Your task to perform on an android device: open chrome and create a bookmark for the current page Image 0: 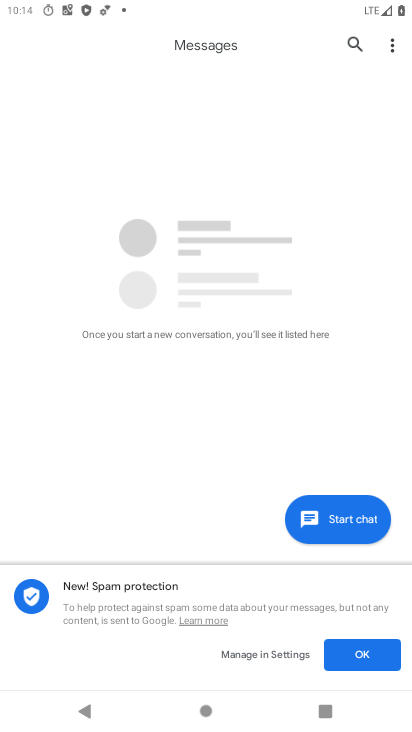
Step 0: press home button
Your task to perform on an android device: open chrome and create a bookmark for the current page Image 1: 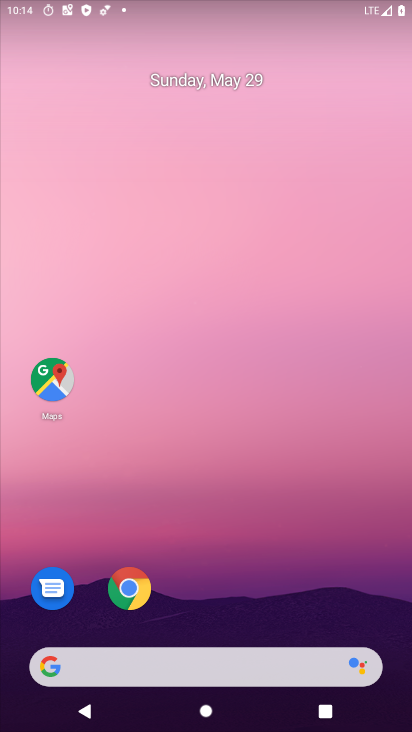
Step 1: drag from (265, 583) to (266, 151)
Your task to perform on an android device: open chrome and create a bookmark for the current page Image 2: 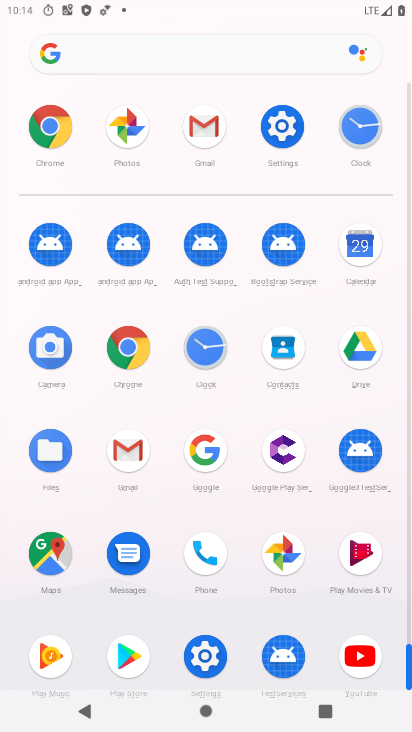
Step 2: click (146, 365)
Your task to perform on an android device: open chrome and create a bookmark for the current page Image 3: 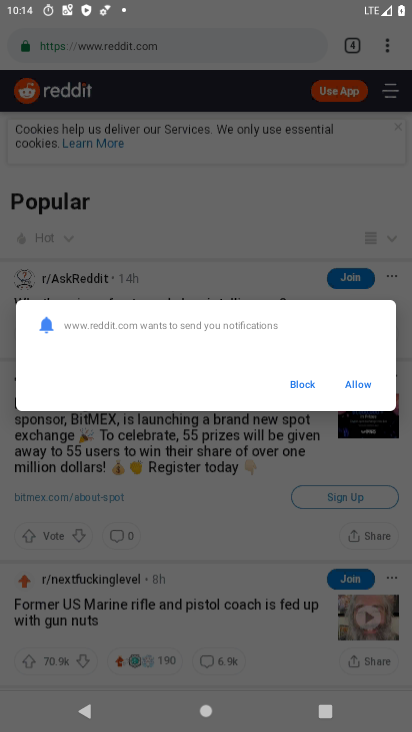
Step 3: click (350, 392)
Your task to perform on an android device: open chrome and create a bookmark for the current page Image 4: 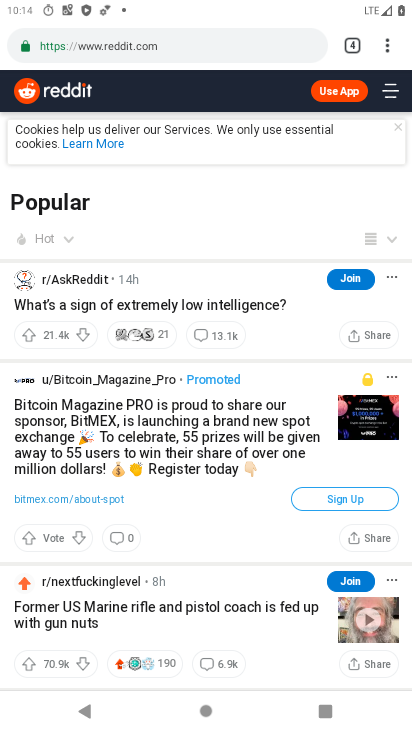
Step 4: click (380, 52)
Your task to perform on an android device: open chrome and create a bookmark for the current page Image 5: 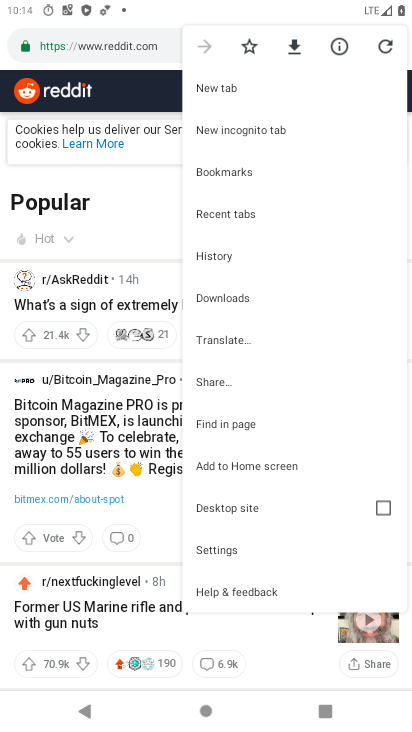
Step 5: click (245, 51)
Your task to perform on an android device: open chrome and create a bookmark for the current page Image 6: 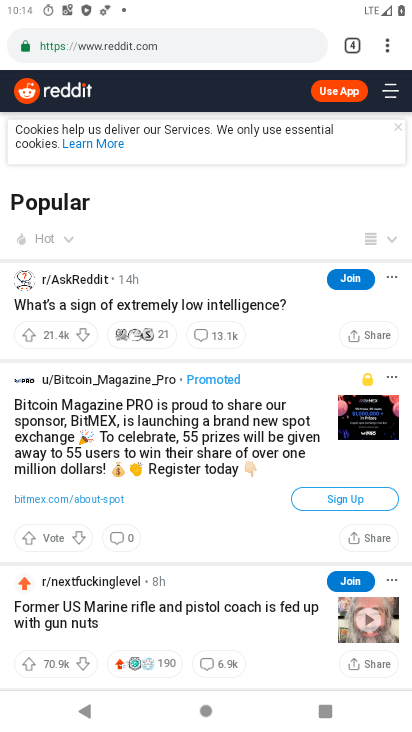
Step 6: task complete